Your task to perform on an android device: Turn on the flashlight Image 0: 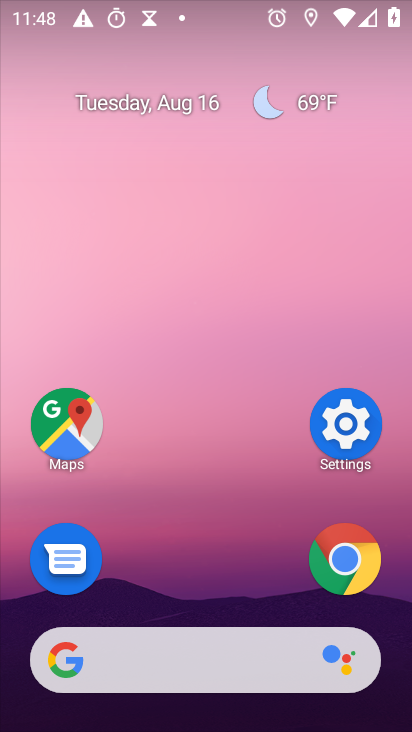
Step 0: drag from (237, 8) to (231, 446)
Your task to perform on an android device: Turn on the flashlight Image 1: 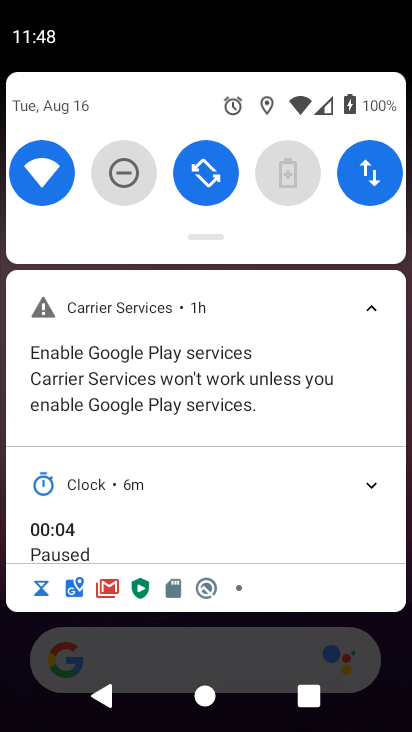
Step 1: task complete